Your task to perform on an android device: turn pop-ups on in chrome Image 0: 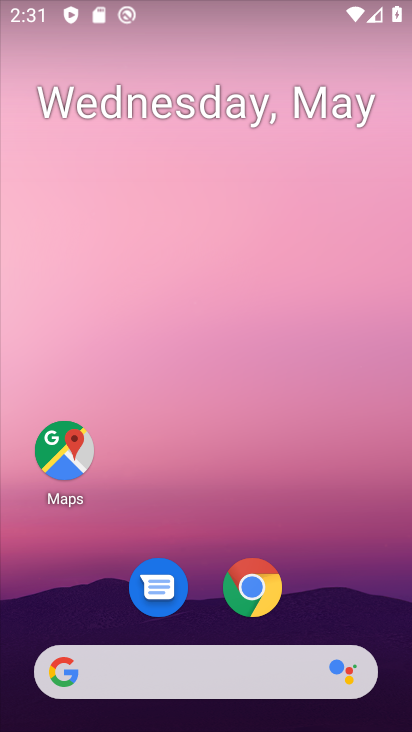
Step 0: click (262, 592)
Your task to perform on an android device: turn pop-ups on in chrome Image 1: 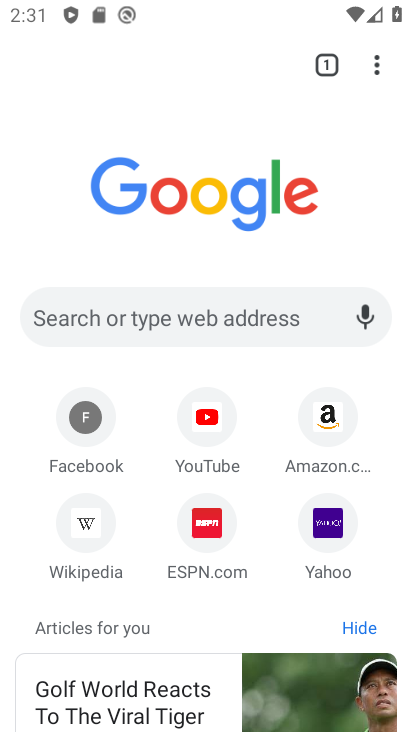
Step 1: click (391, 63)
Your task to perform on an android device: turn pop-ups on in chrome Image 2: 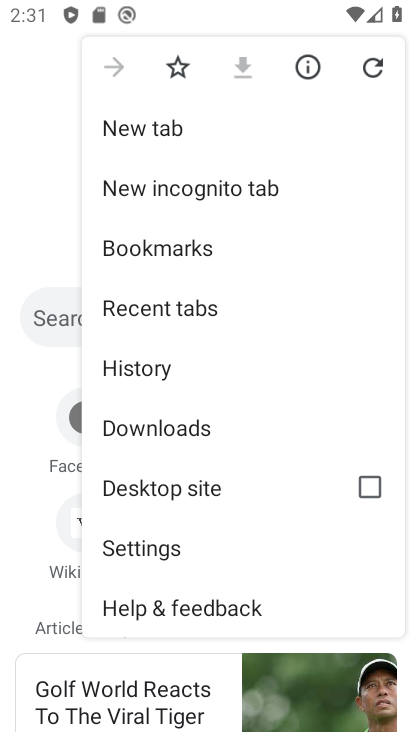
Step 2: click (137, 542)
Your task to perform on an android device: turn pop-ups on in chrome Image 3: 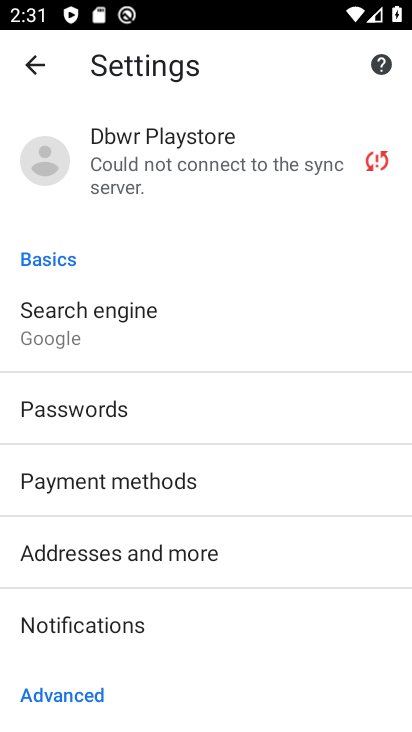
Step 3: drag from (171, 589) to (195, 205)
Your task to perform on an android device: turn pop-ups on in chrome Image 4: 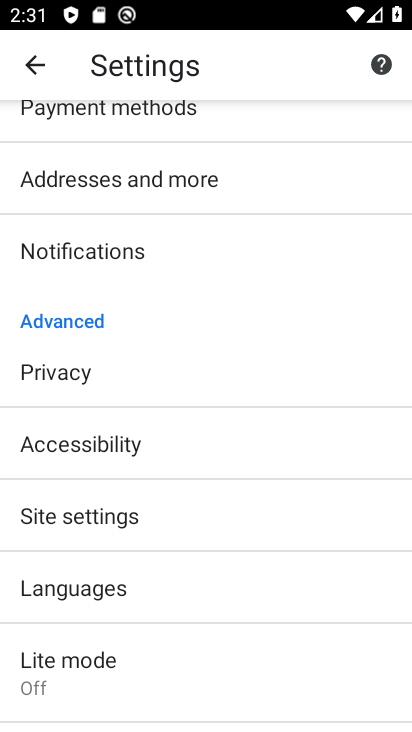
Step 4: click (84, 509)
Your task to perform on an android device: turn pop-ups on in chrome Image 5: 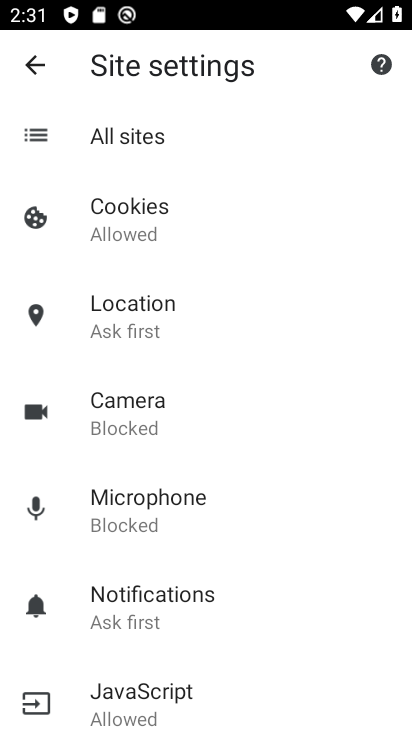
Step 5: drag from (150, 619) to (245, 144)
Your task to perform on an android device: turn pop-ups on in chrome Image 6: 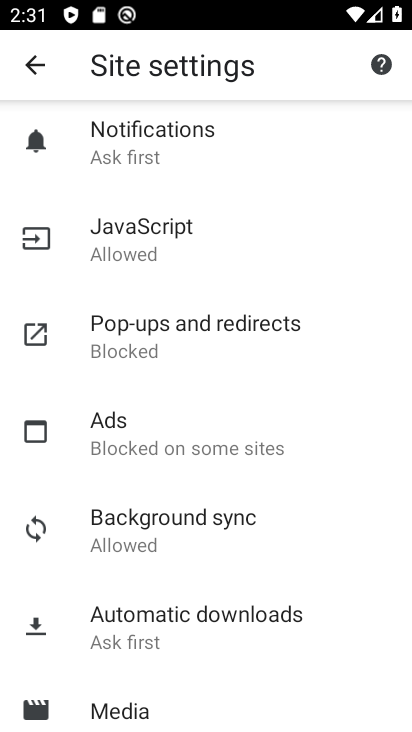
Step 6: click (177, 351)
Your task to perform on an android device: turn pop-ups on in chrome Image 7: 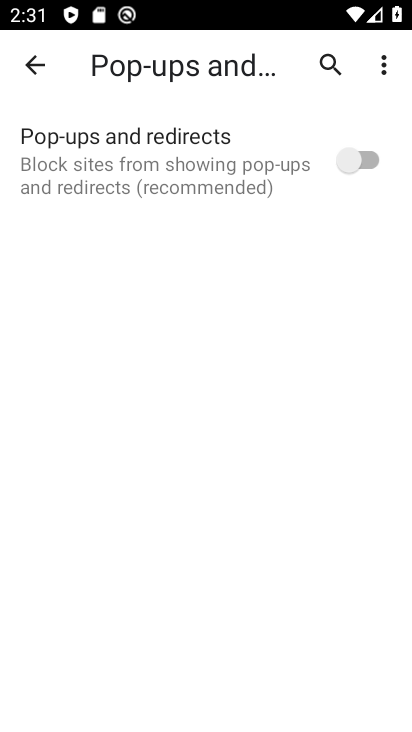
Step 7: click (372, 162)
Your task to perform on an android device: turn pop-ups on in chrome Image 8: 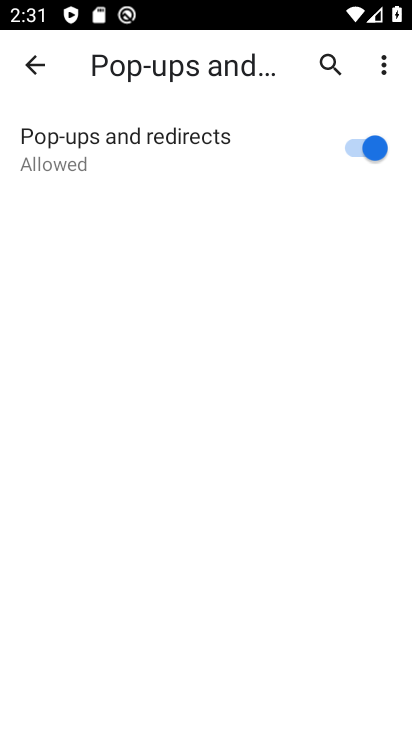
Step 8: task complete